Your task to perform on an android device: choose inbox layout in the gmail app Image 0: 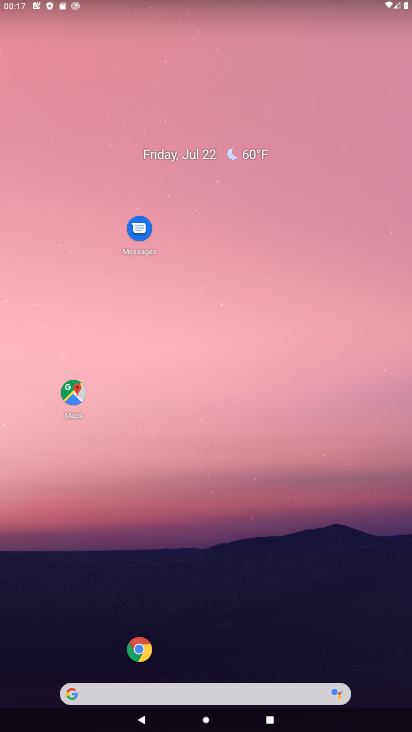
Step 0: drag from (45, 668) to (164, 308)
Your task to perform on an android device: choose inbox layout in the gmail app Image 1: 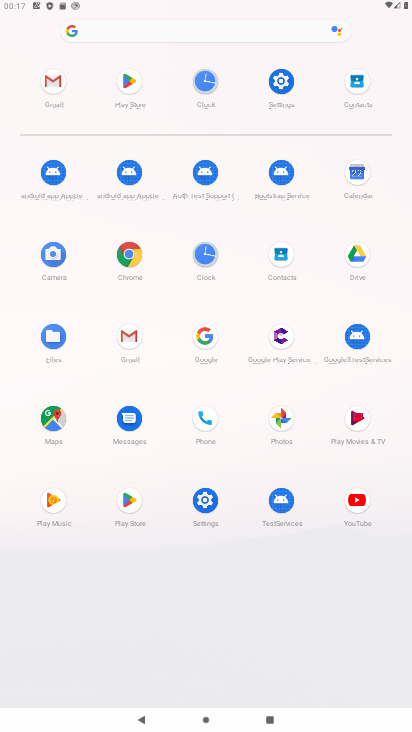
Step 1: click (120, 338)
Your task to perform on an android device: choose inbox layout in the gmail app Image 2: 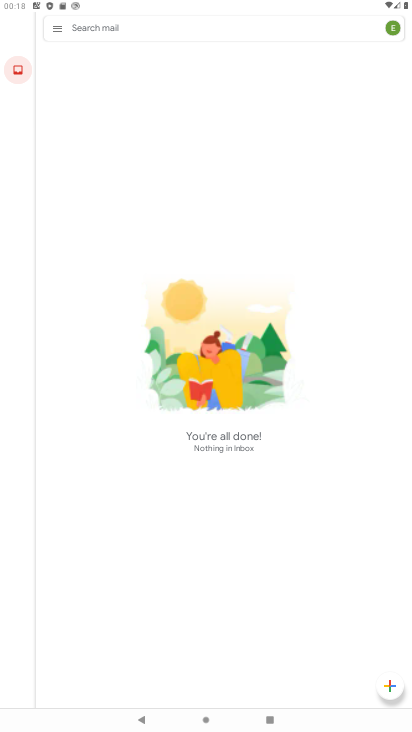
Step 2: click (61, 31)
Your task to perform on an android device: choose inbox layout in the gmail app Image 3: 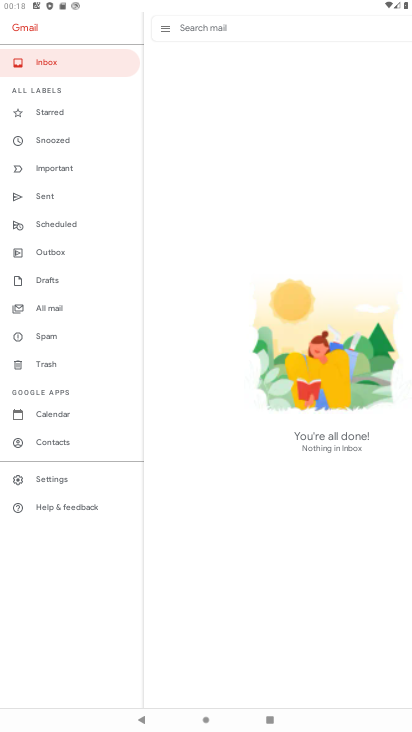
Step 3: click (40, 484)
Your task to perform on an android device: choose inbox layout in the gmail app Image 4: 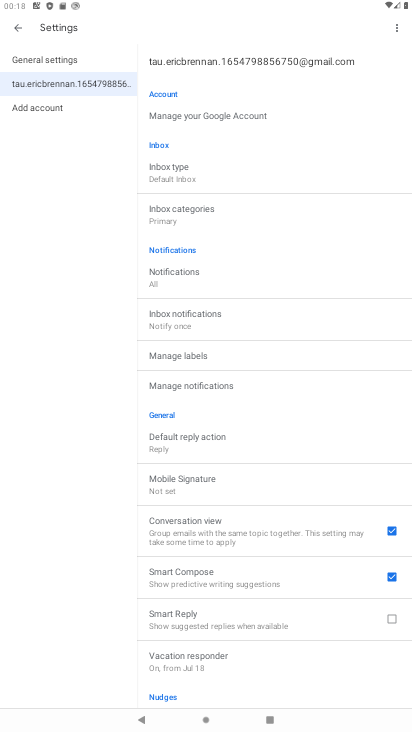
Step 4: task complete